Your task to perform on an android device: Add "razer naga" to the cart on costco.com Image 0: 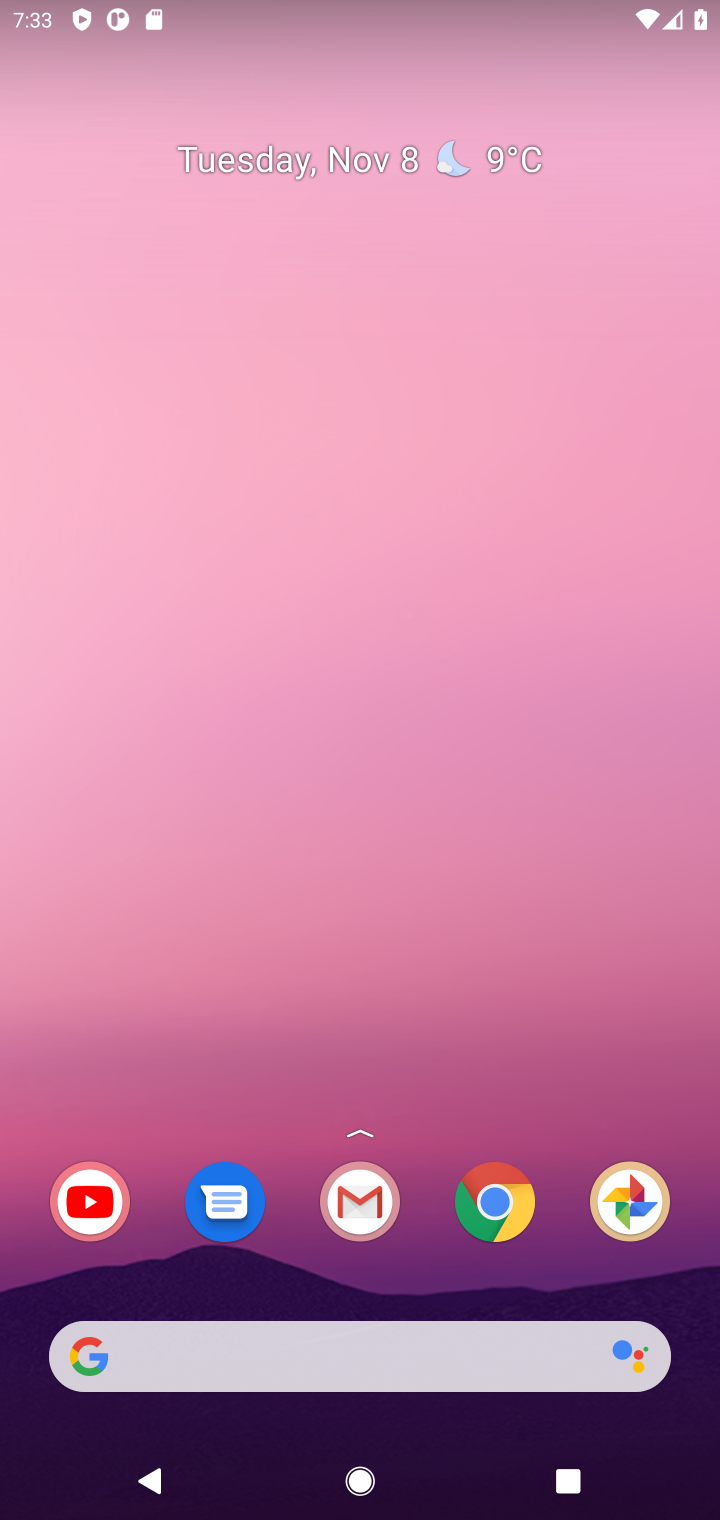
Step 0: click (390, 1373)
Your task to perform on an android device: Add "razer naga" to the cart on costco.com Image 1: 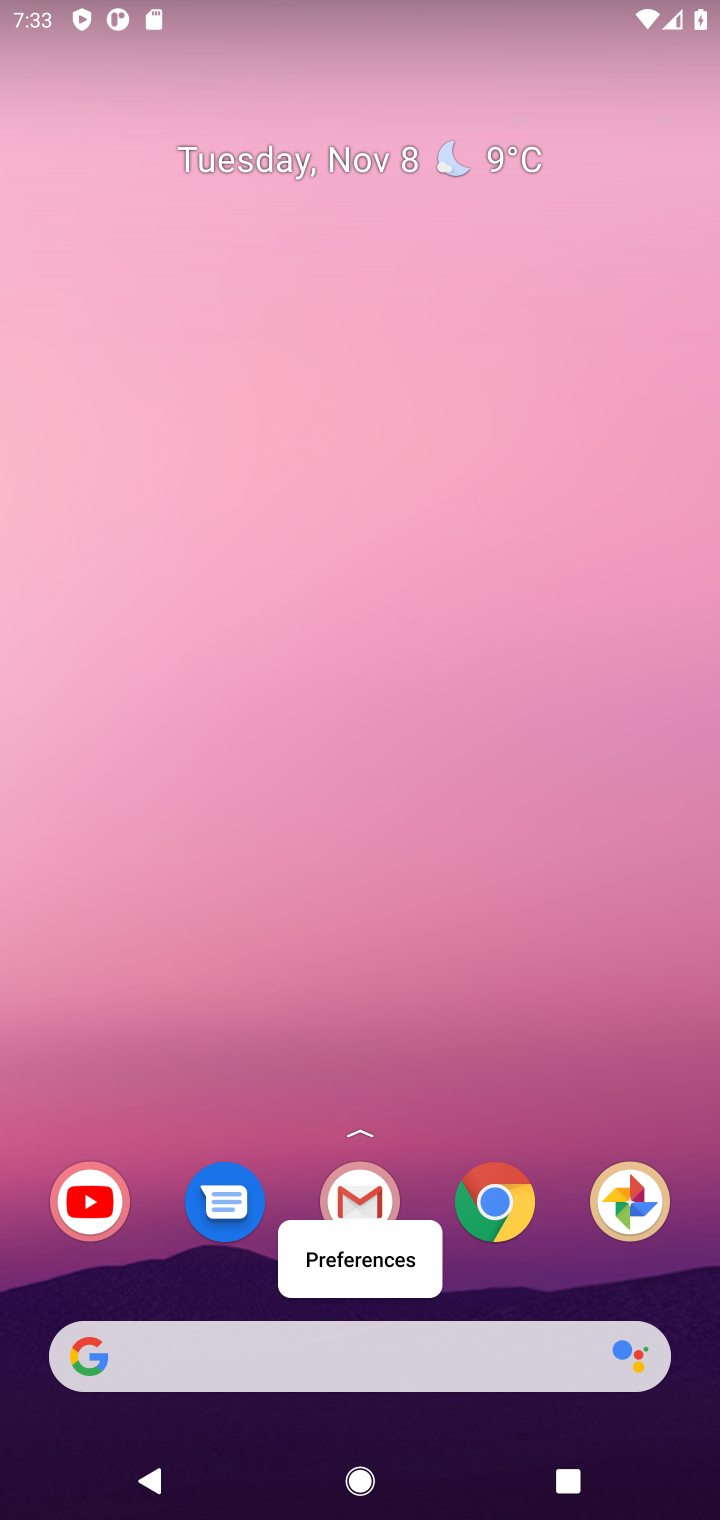
Step 1: click (390, 1373)
Your task to perform on an android device: Add "razer naga" to the cart on costco.com Image 2: 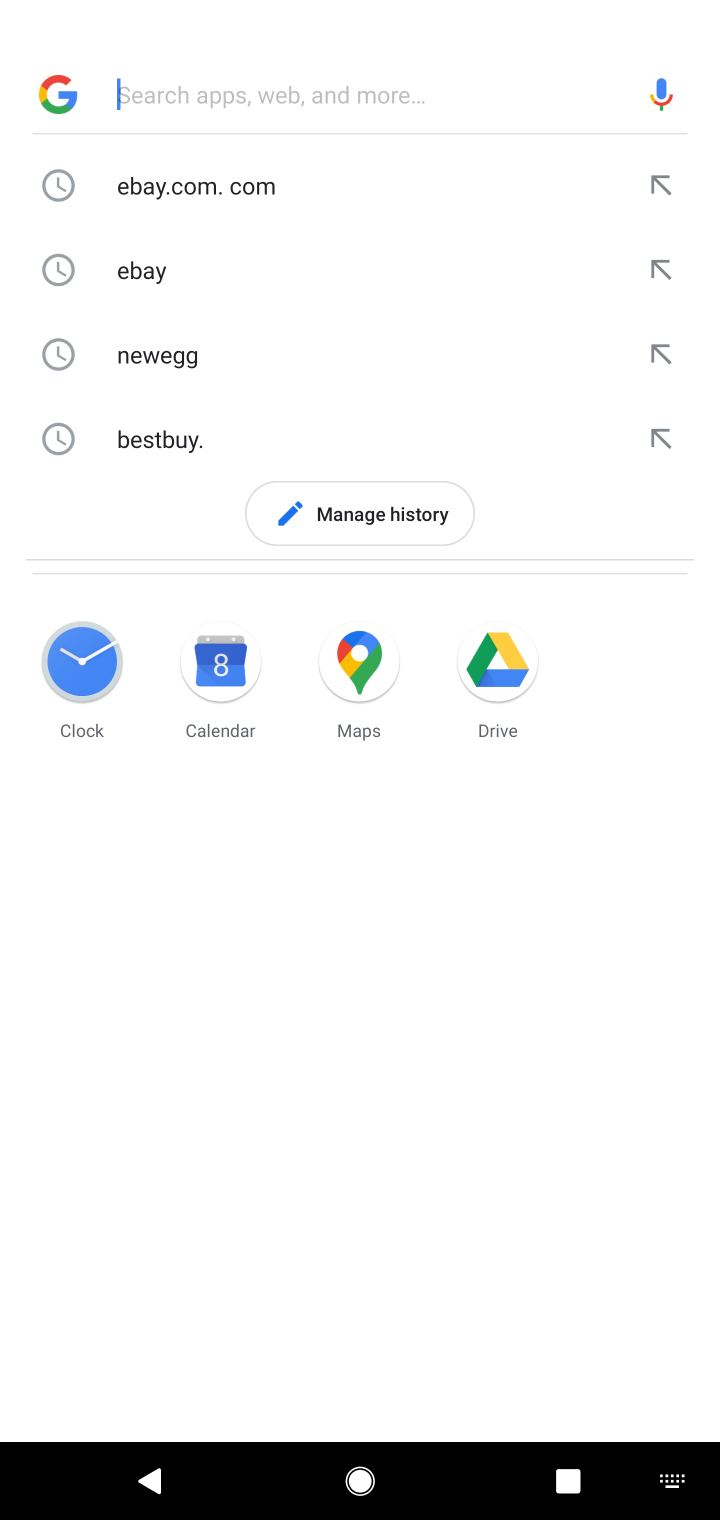
Step 2: type "costco.com"
Your task to perform on an android device: Add "razer naga" to the cart on costco.com Image 3: 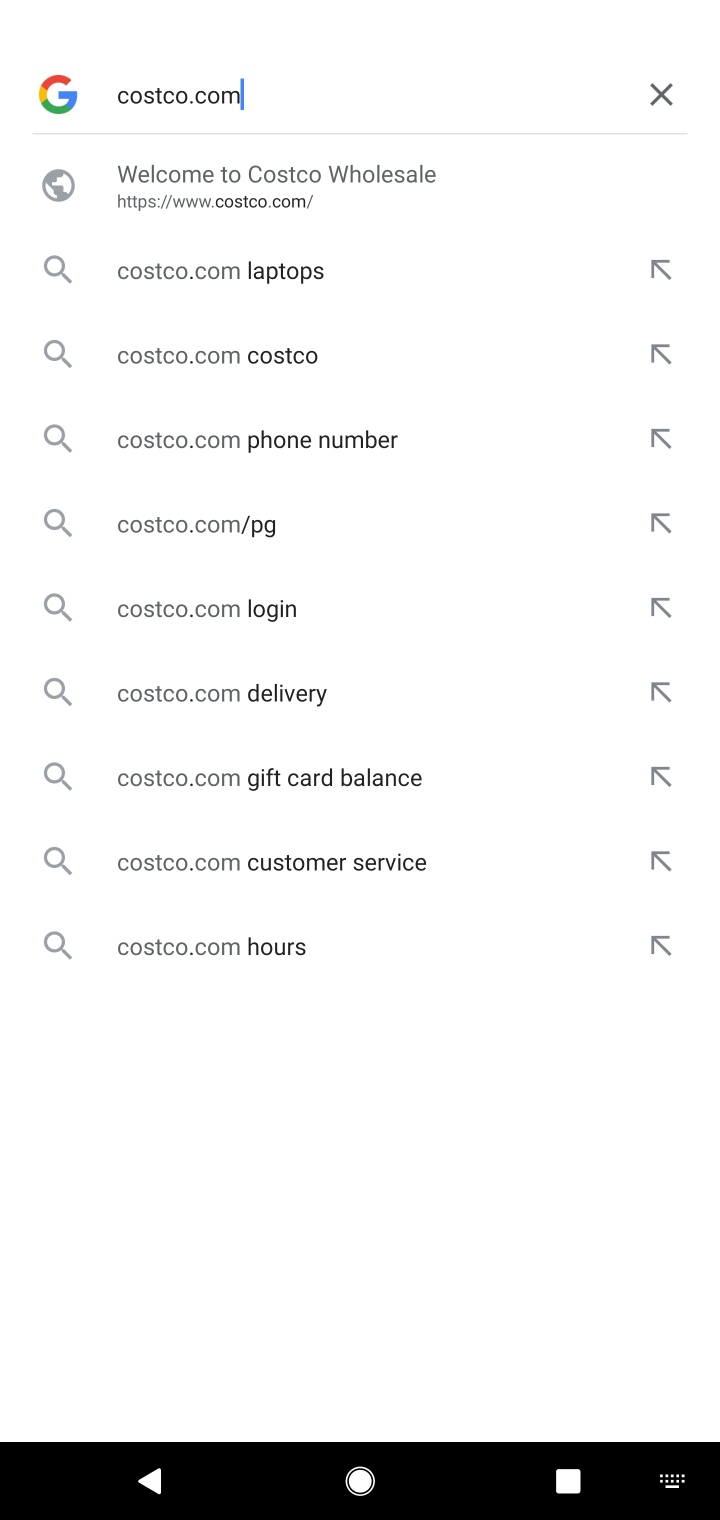
Step 3: press enter
Your task to perform on an android device: Add "razer naga" to the cart on costco.com Image 4: 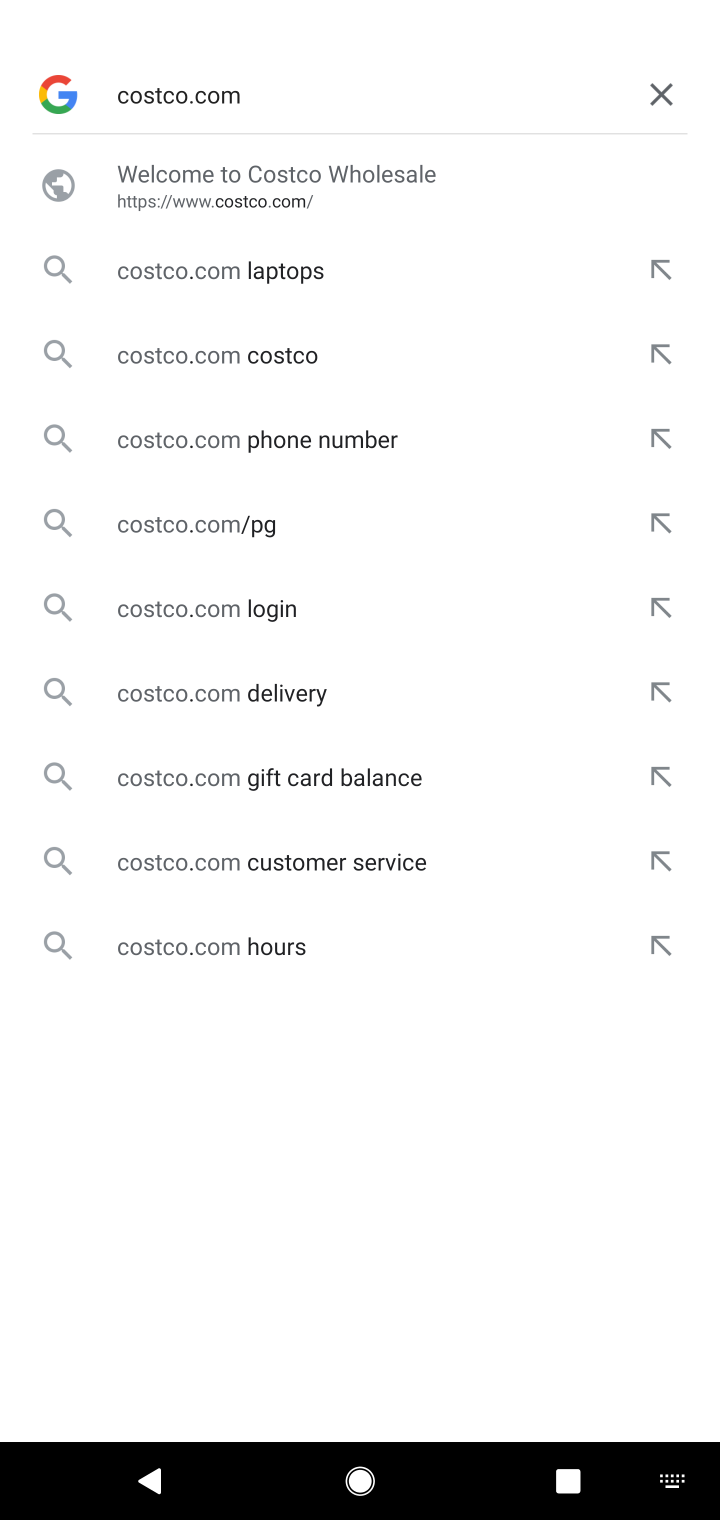
Step 4: type ""
Your task to perform on an android device: Add "razer naga" to the cart on costco.com Image 5: 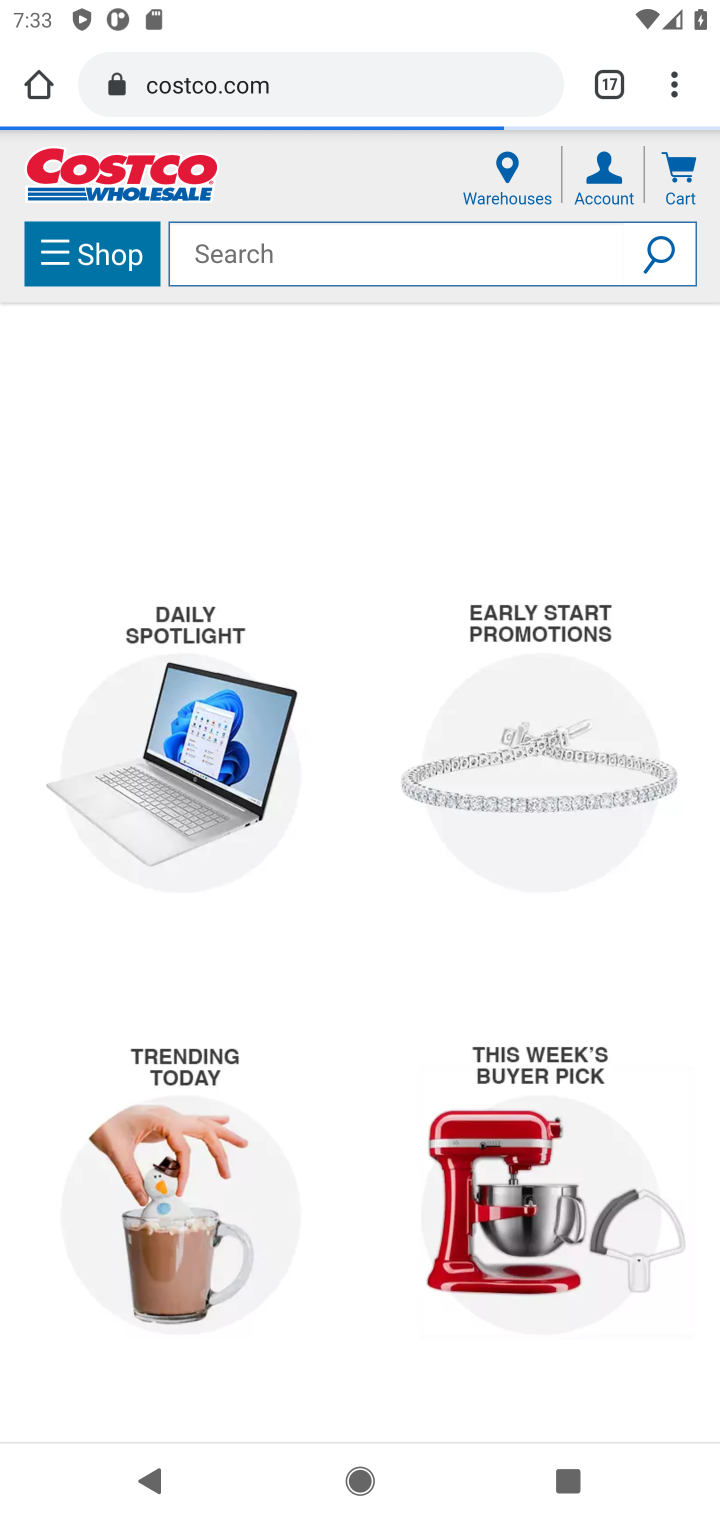
Step 5: click (273, 261)
Your task to perform on an android device: Add "razer naga" to the cart on costco.com Image 6: 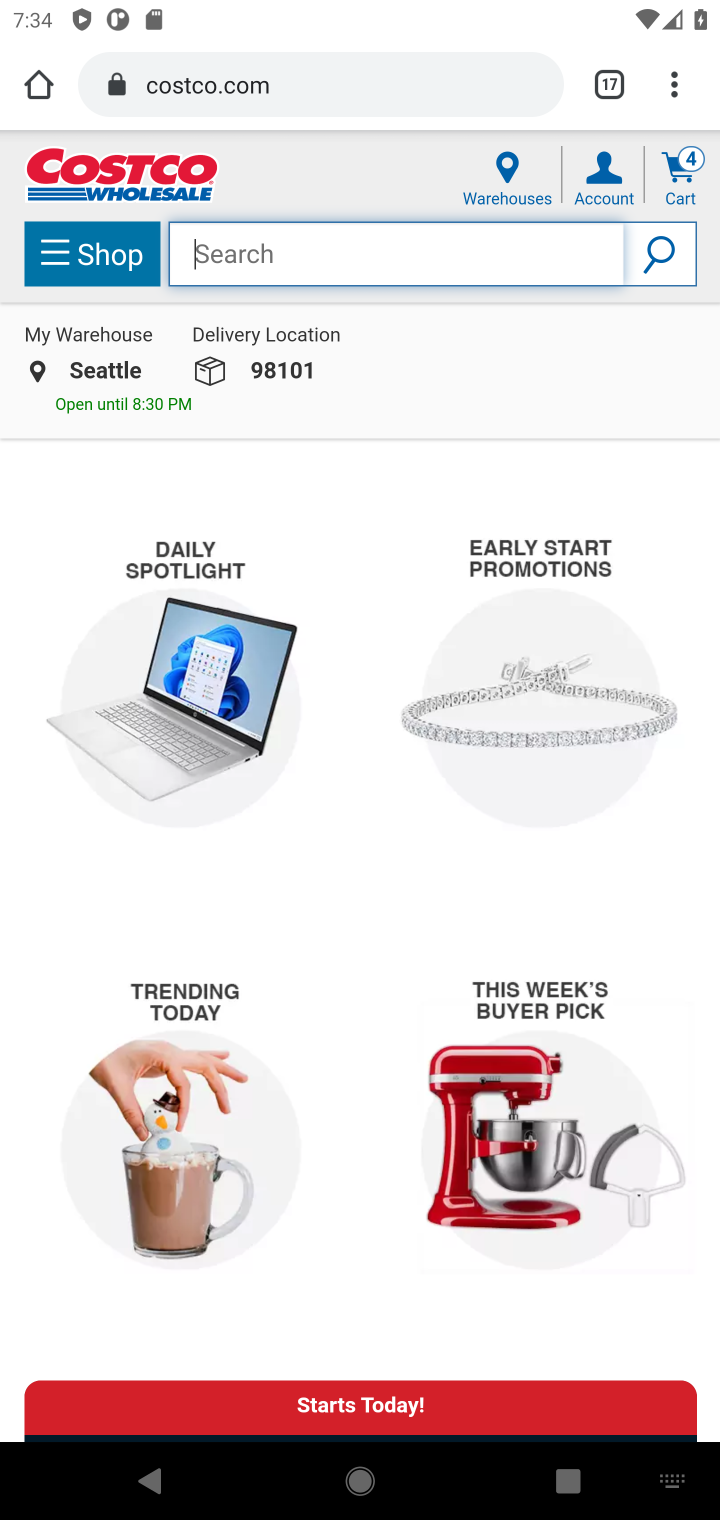
Step 6: type "razer naga"
Your task to perform on an android device: Add "razer naga" to the cart on costco.com Image 7: 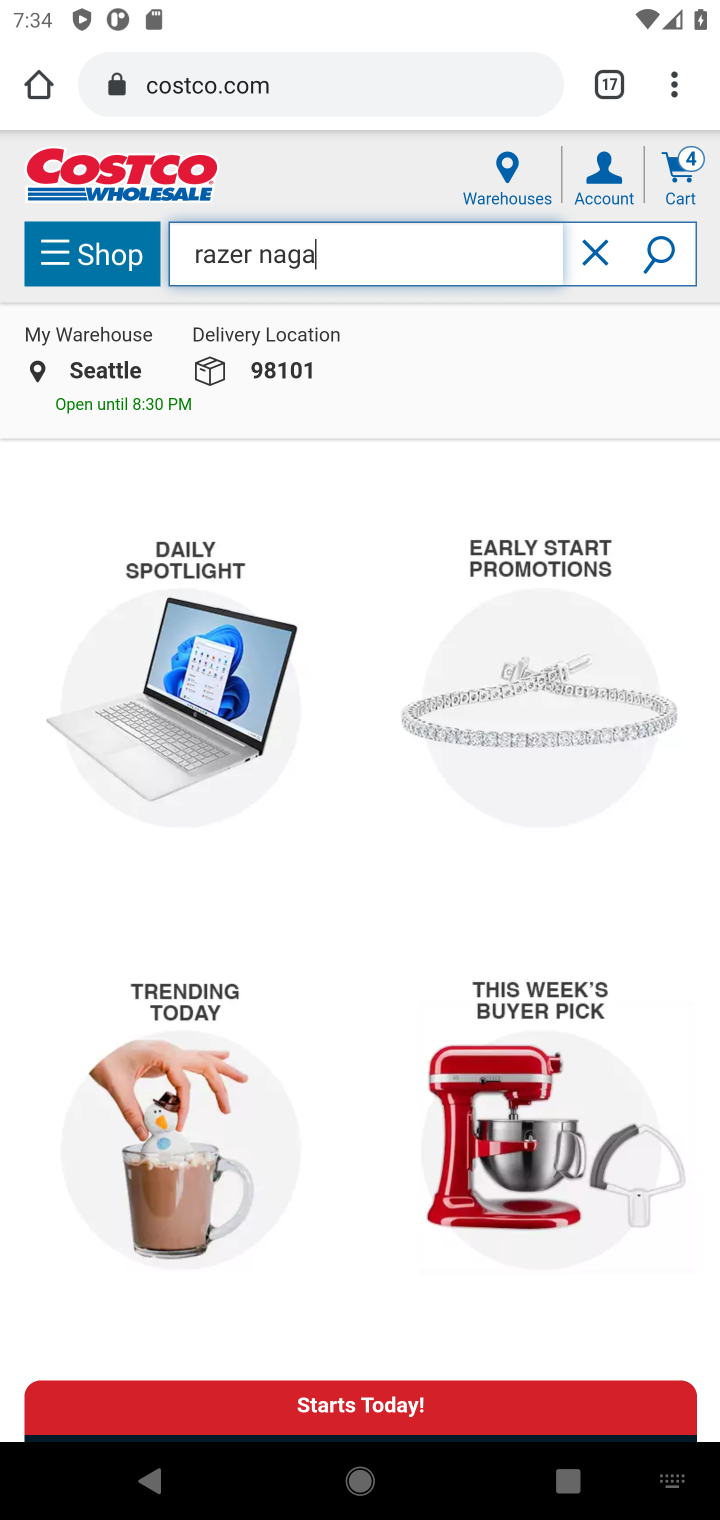
Step 7: type ""
Your task to perform on an android device: Add "razer naga" to the cart on costco.com Image 8: 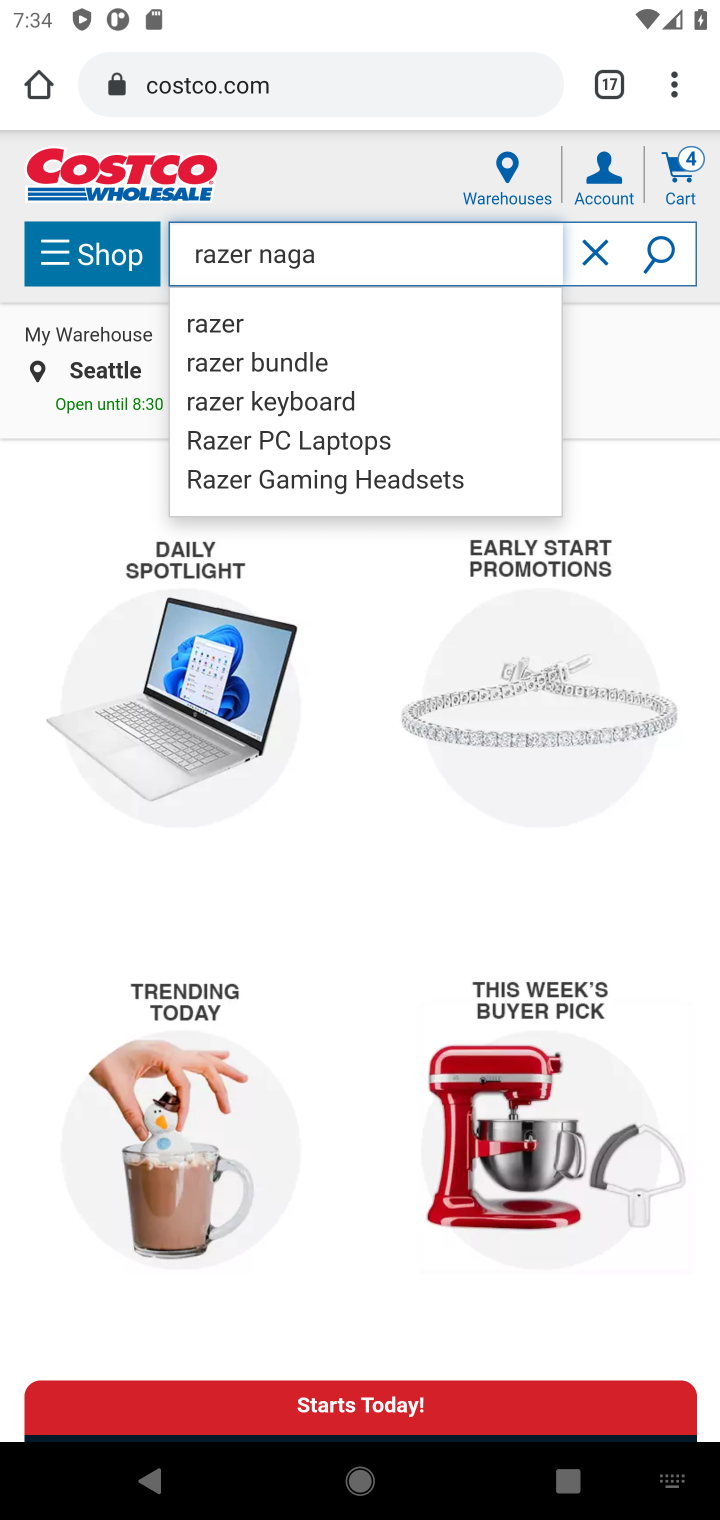
Step 8: press enter
Your task to perform on an android device: Add "razer naga" to the cart on costco.com Image 9: 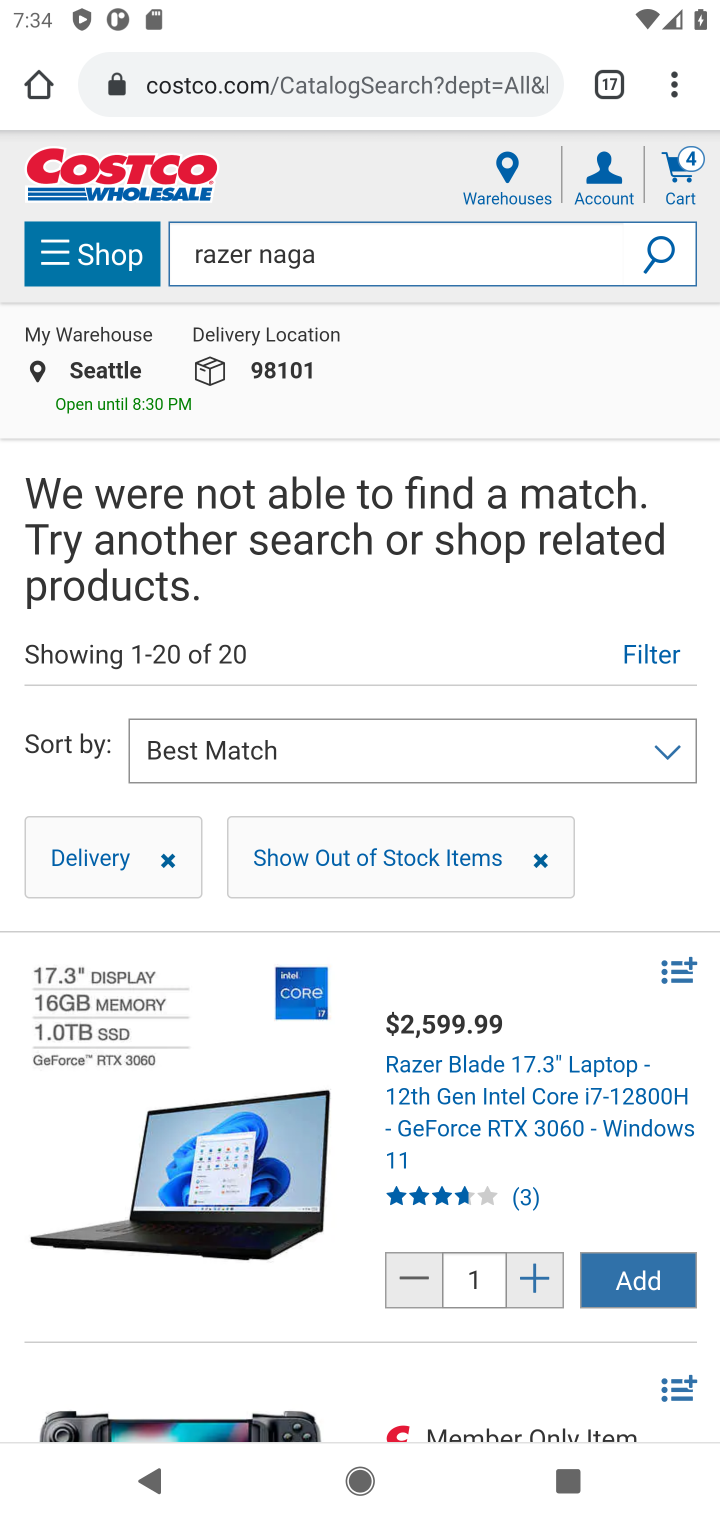
Step 9: task complete